Your task to perform on an android device: delete a single message in the gmail app Image 0: 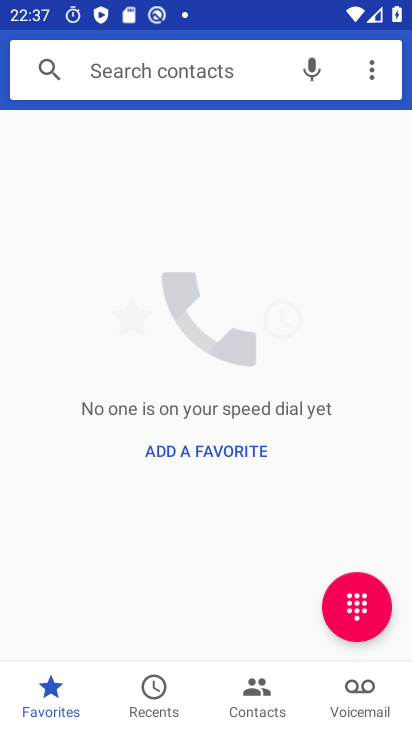
Step 0: press home button
Your task to perform on an android device: delete a single message in the gmail app Image 1: 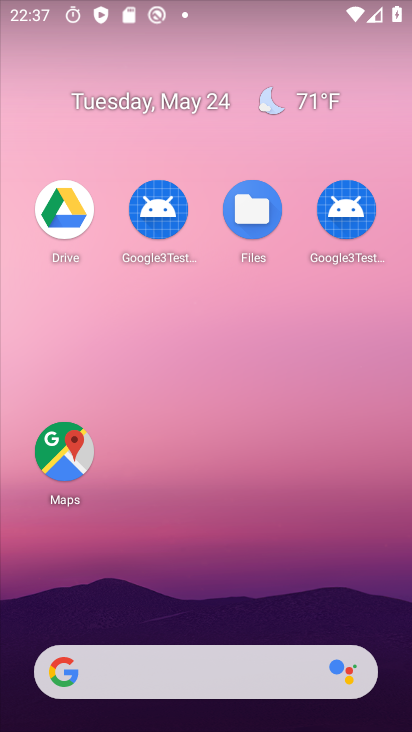
Step 1: drag from (164, 579) to (186, 7)
Your task to perform on an android device: delete a single message in the gmail app Image 2: 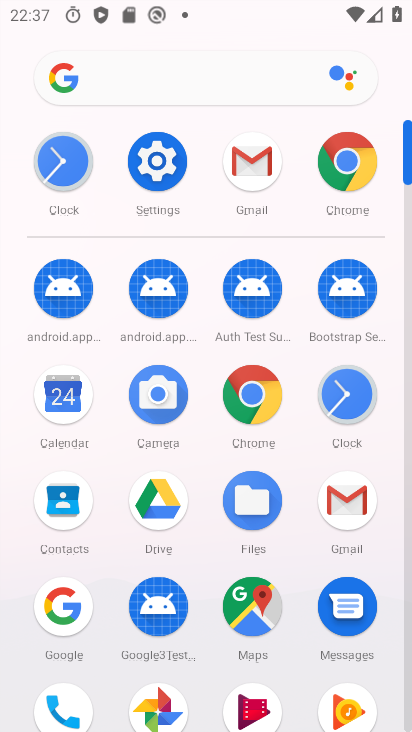
Step 2: click (358, 530)
Your task to perform on an android device: delete a single message in the gmail app Image 3: 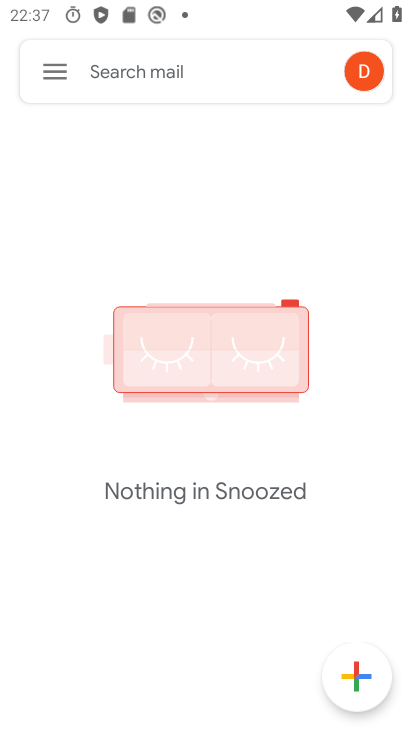
Step 3: click (44, 59)
Your task to perform on an android device: delete a single message in the gmail app Image 4: 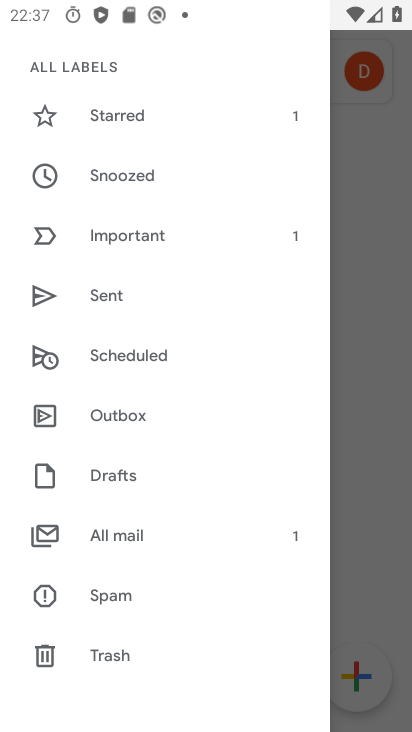
Step 4: click (146, 545)
Your task to perform on an android device: delete a single message in the gmail app Image 5: 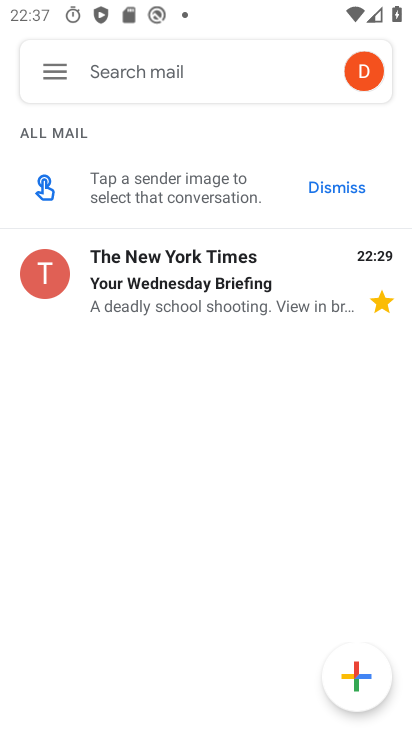
Step 5: click (296, 260)
Your task to perform on an android device: delete a single message in the gmail app Image 6: 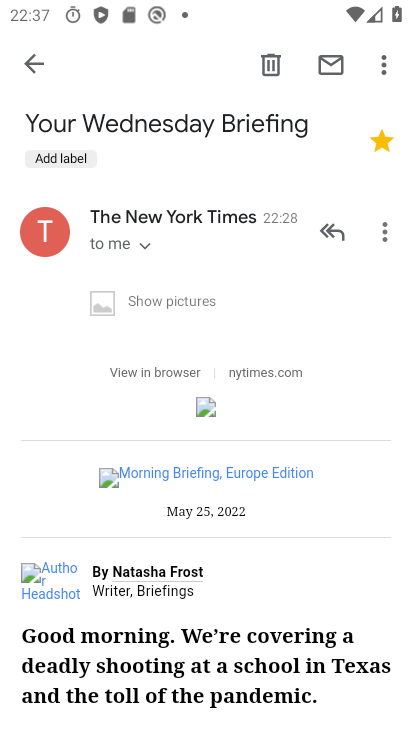
Step 6: click (259, 61)
Your task to perform on an android device: delete a single message in the gmail app Image 7: 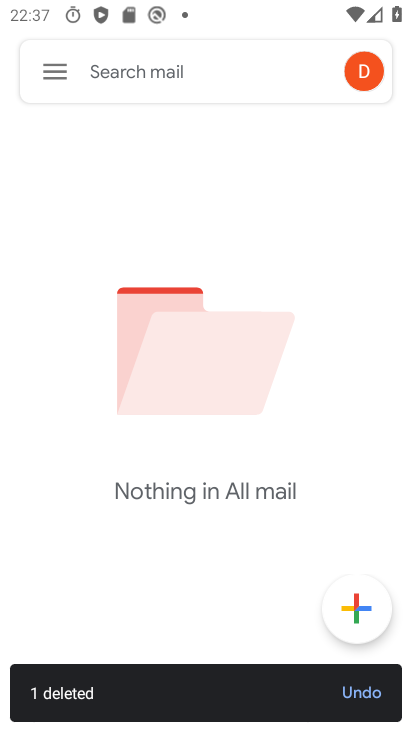
Step 7: task complete